Your task to perform on an android device: turn off location Image 0: 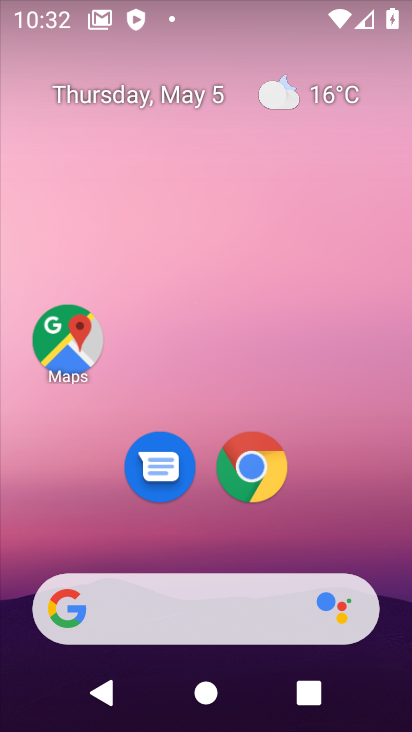
Step 0: drag from (196, 529) to (205, 217)
Your task to perform on an android device: turn off location Image 1: 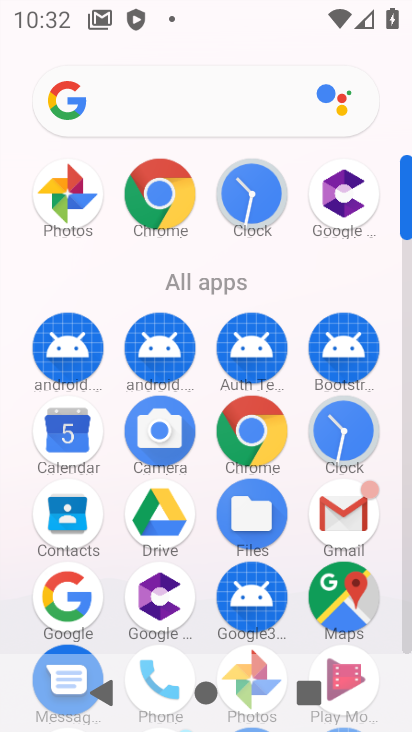
Step 1: drag from (208, 566) to (227, 400)
Your task to perform on an android device: turn off location Image 2: 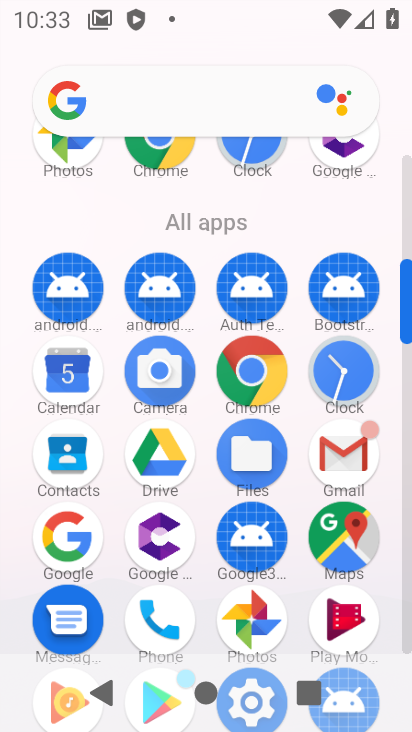
Step 2: drag from (207, 642) to (220, 441)
Your task to perform on an android device: turn off location Image 3: 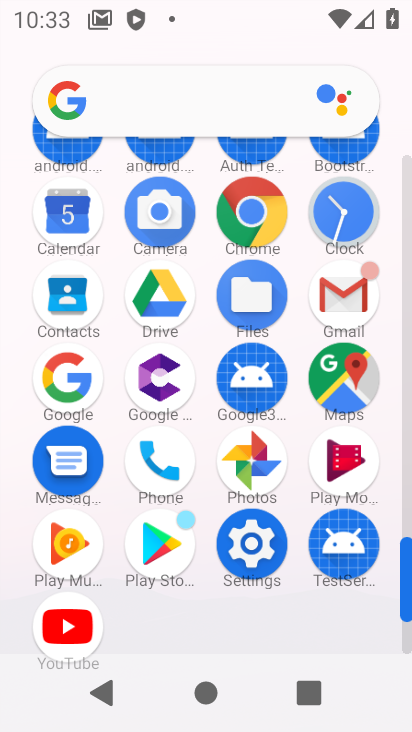
Step 3: click (244, 557)
Your task to perform on an android device: turn off location Image 4: 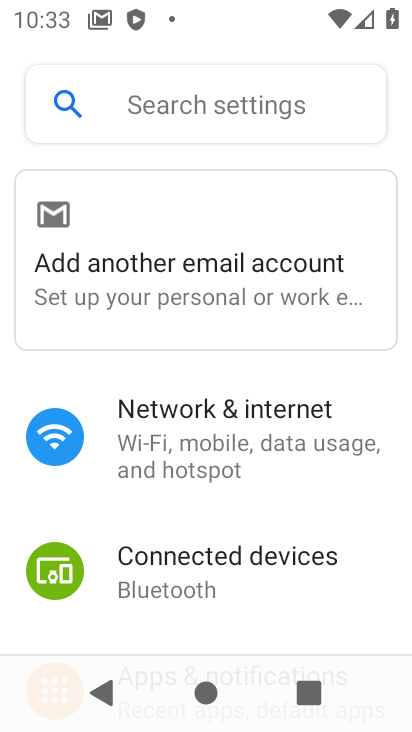
Step 4: drag from (228, 553) to (245, 240)
Your task to perform on an android device: turn off location Image 5: 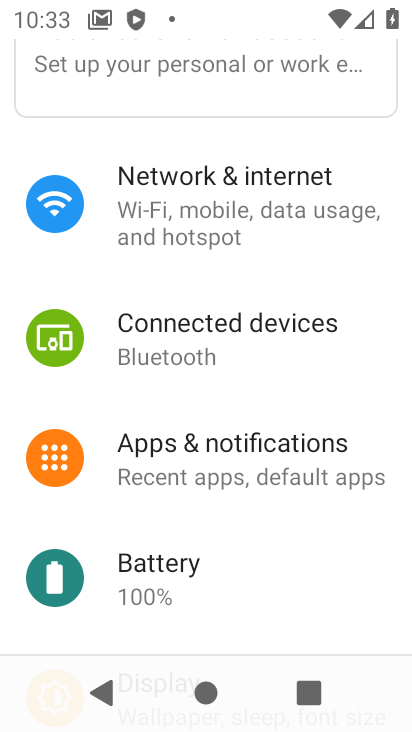
Step 5: drag from (221, 561) to (260, 202)
Your task to perform on an android device: turn off location Image 6: 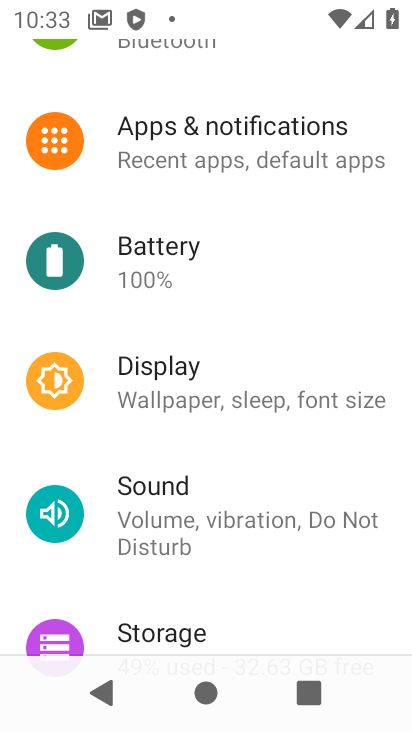
Step 6: drag from (256, 526) to (265, 315)
Your task to perform on an android device: turn off location Image 7: 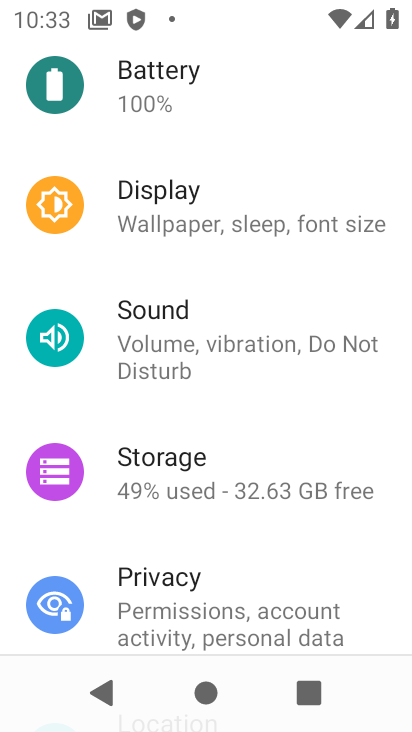
Step 7: drag from (214, 488) to (304, 136)
Your task to perform on an android device: turn off location Image 8: 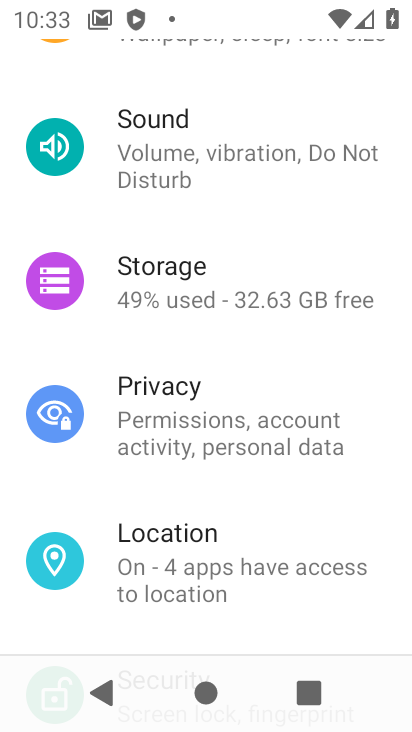
Step 8: click (283, 599)
Your task to perform on an android device: turn off location Image 9: 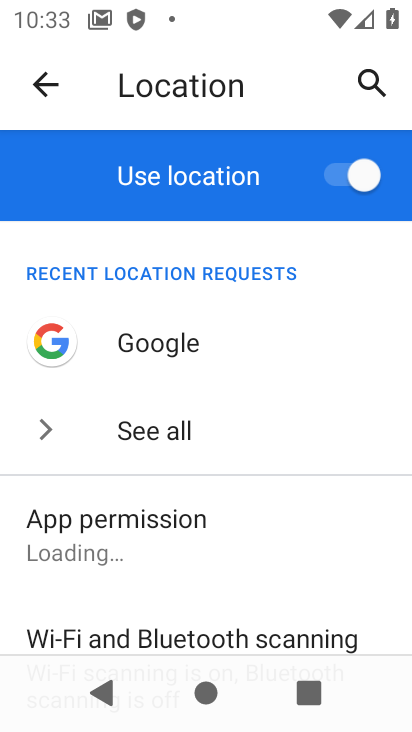
Step 9: drag from (216, 533) to (238, 296)
Your task to perform on an android device: turn off location Image 10: 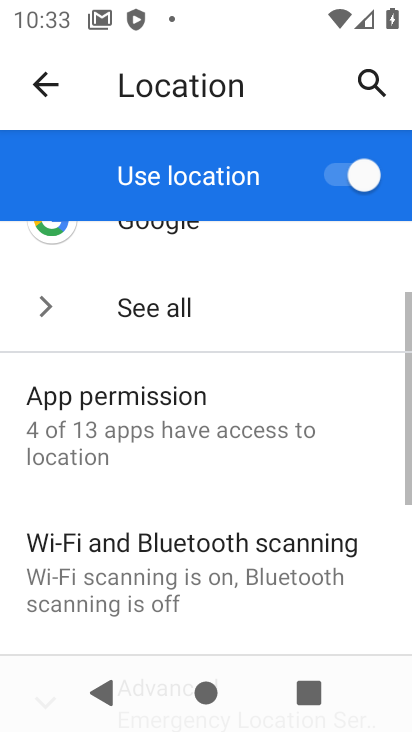
Step 10: click (349, 184)
Your task to perform on an android device: turn off location Image 11: 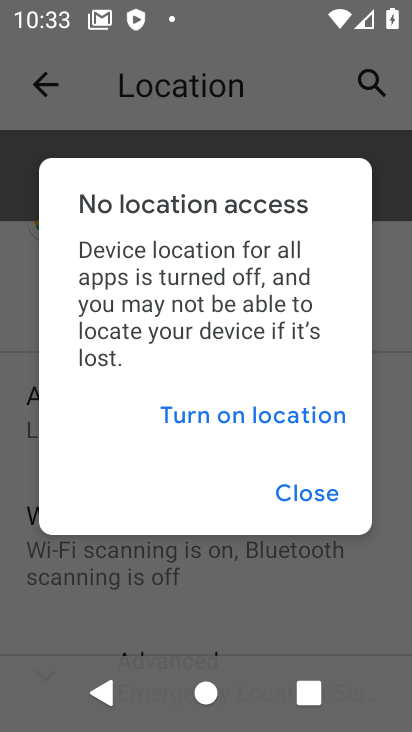
Step 11: click (292, 496)
Your task to perform on an android device: turn off location Image 12: 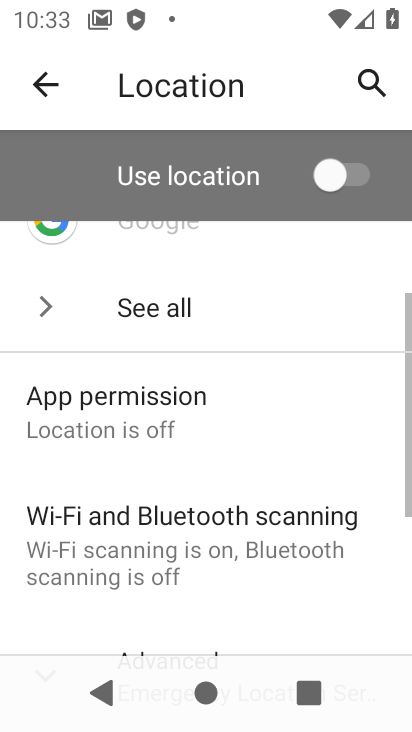
Step 12: task complete